Your task to perform on an android device: install app "Chime – Mobile Banking" Image 0: 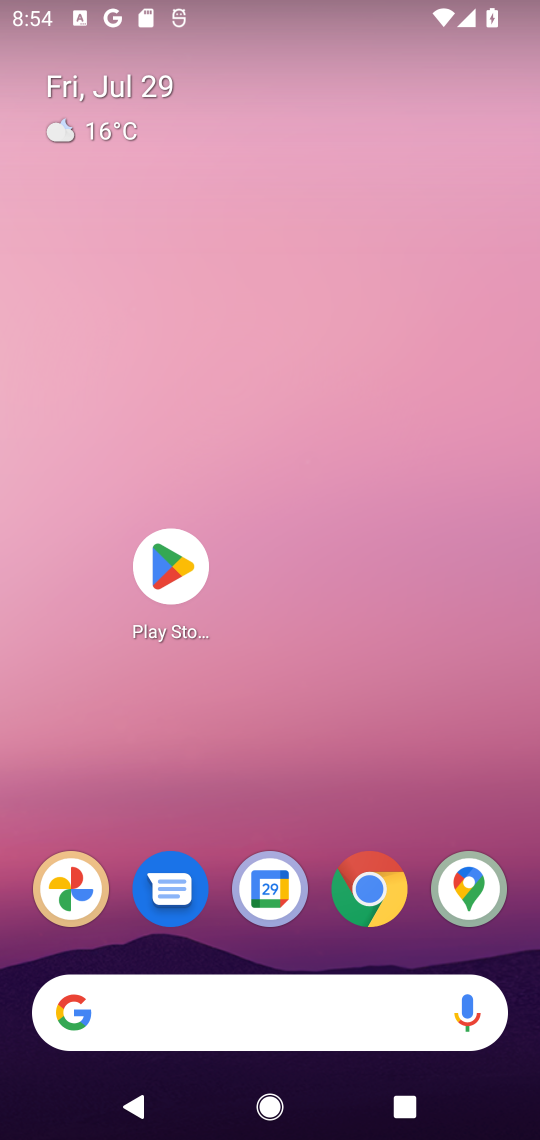
Step 0: click (171, 560)
Your task to perform on an android device: install app "Chime – Mobile Banking" Image 1: 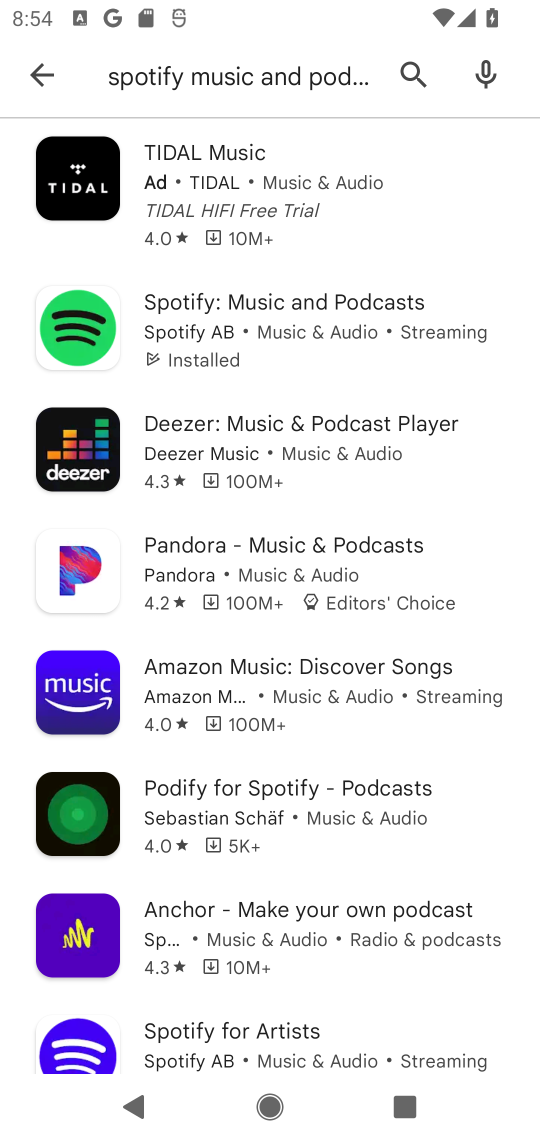
Step 1: click (417, 65)
Your task to perform on an android device: install app "Chime – Mobile Banking" Image 2: 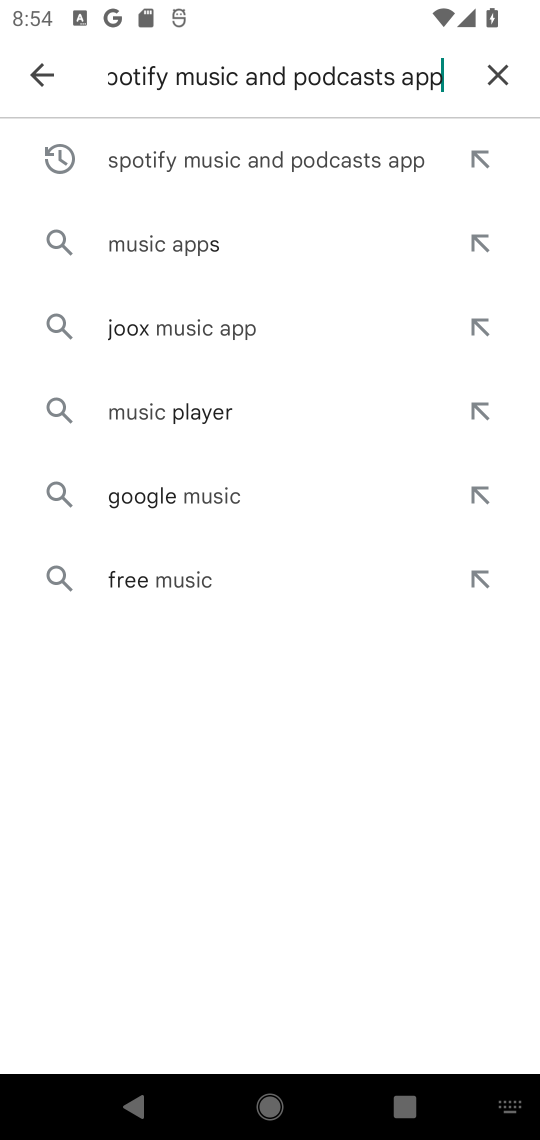
Step 2: click (490, 69)
Your task to perform on an android device: install app "Chime – Mobile Banking" Image 3: 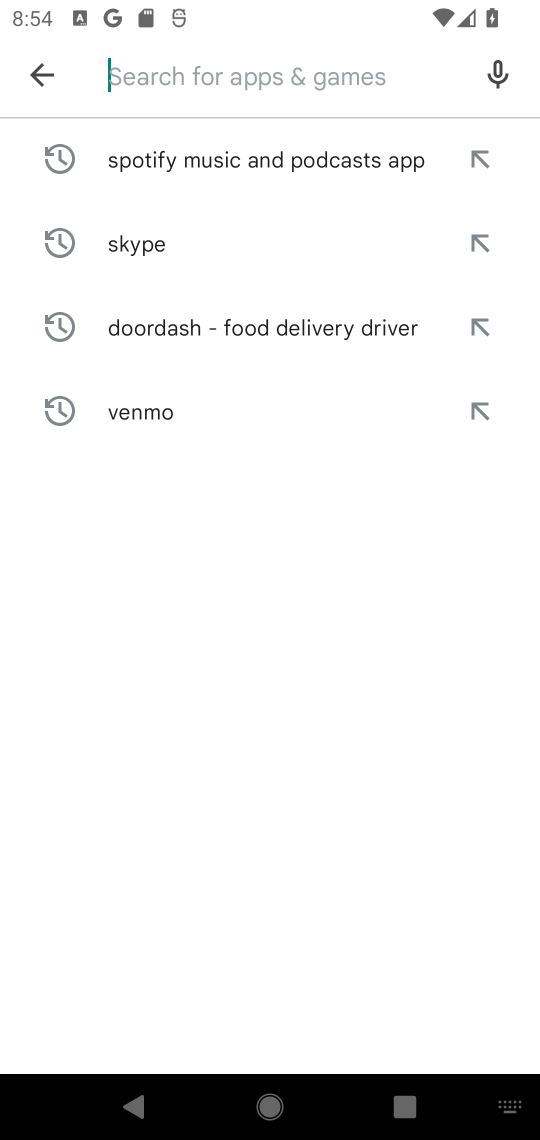
Step 3: type "Chime – Mobile Banking"
Your task to perform on an android device: install app "Chime – Mobile Banking" Image 4: 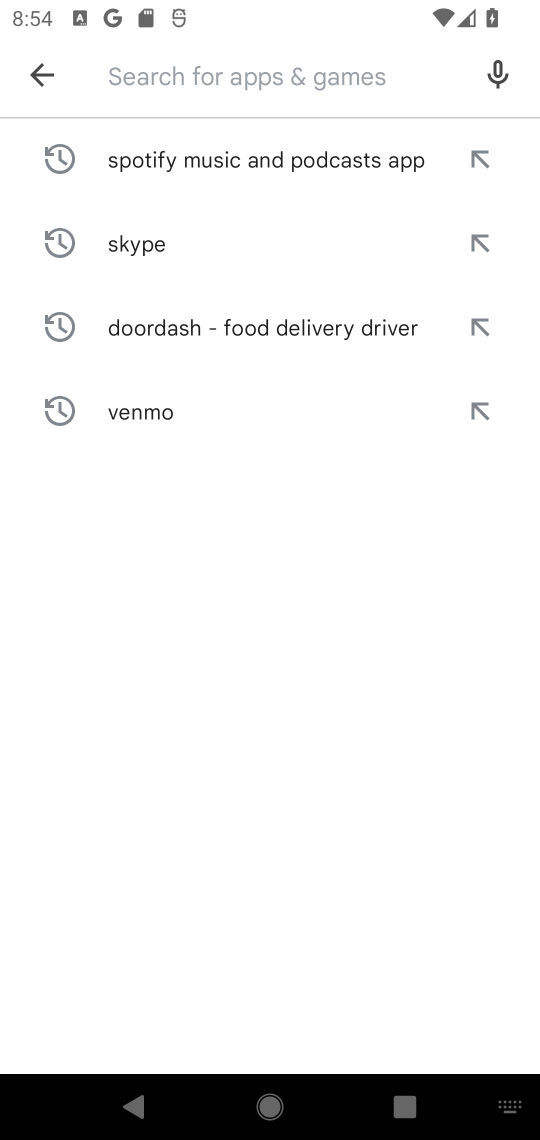
Step 4: type "chime- mobile banking"
Your task to perform on an android device: install app "Chime – Mobile Banking" Image 5: 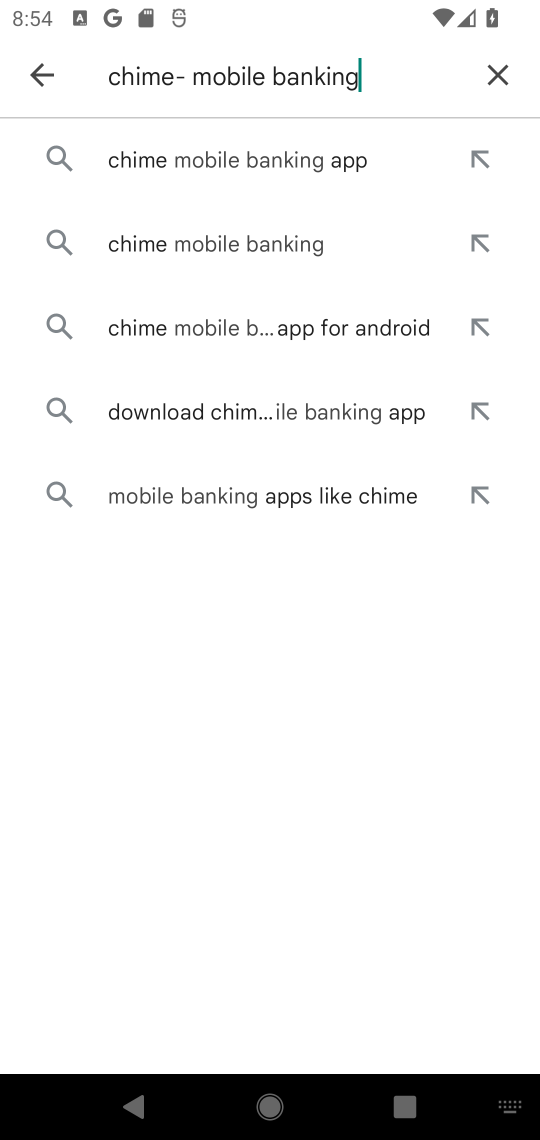
Step 5: click (290, 162)
Your task to perform on an android device: install app "Chime – Mobile Banking" Image 6: 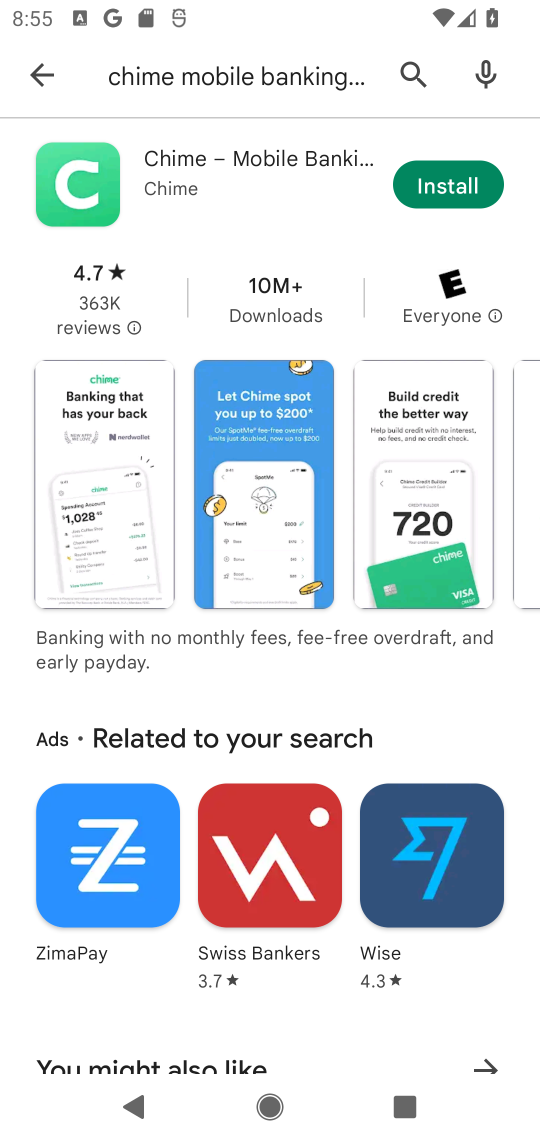
Step 6: click (429, 186)
Your task to perform on an android device: install app "Chime – Mobile Banking" Image 7: 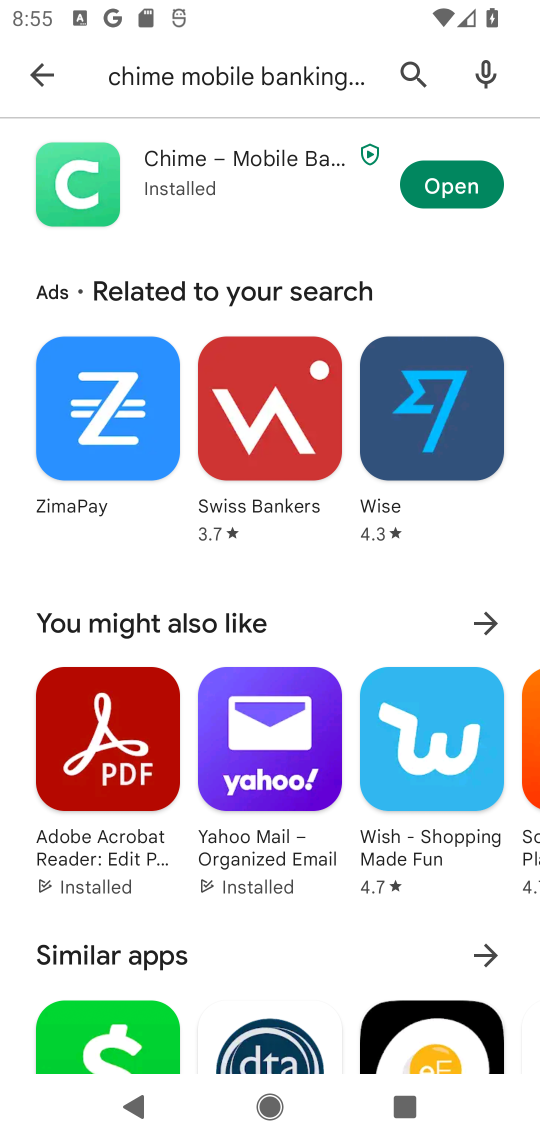
Step 7: task complete